Your task to perform on an android device: What's the weather today? Image 0: 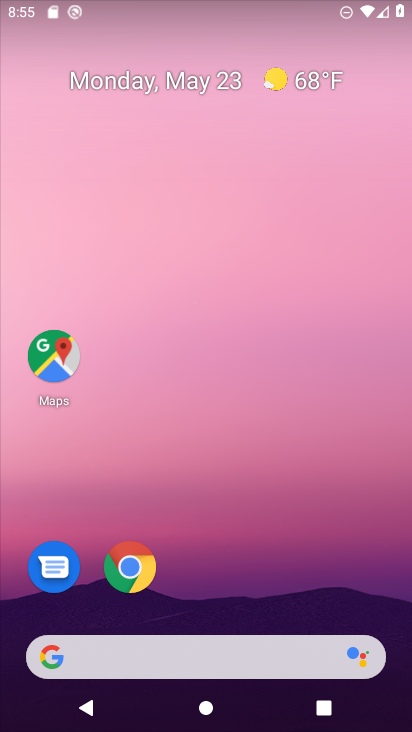
Step 0: click (409, 60)
Your task to perform on an android device: What's the weather today? Image 1: 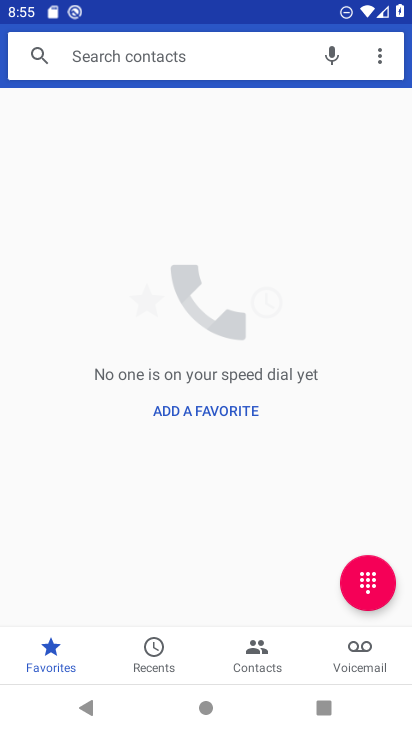
Step 1: press home button
Your task to perform on an android device: What's the weather today? Image 2: 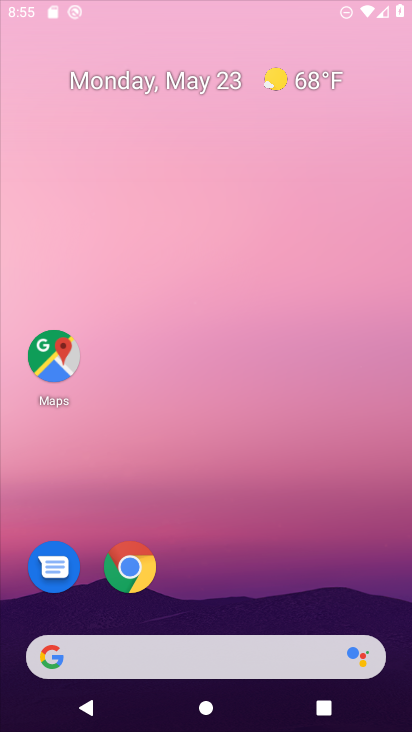
Step 2: drag from (191, 630) to (286, 124)
Your task to perform on an android device: What's the weather today? Image 3: 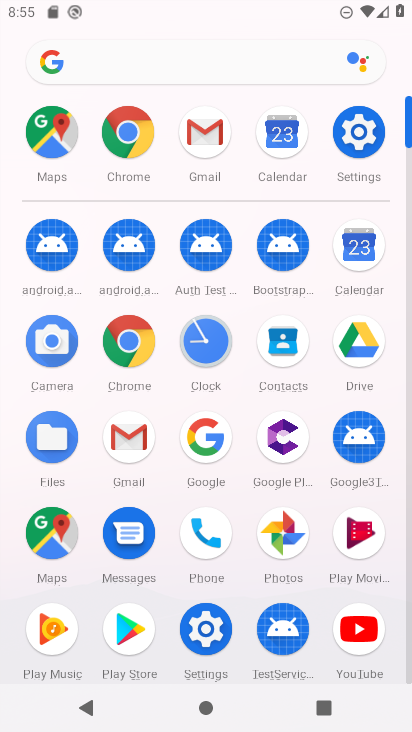
Step 3: click (181, 53)
Your task to perform on an android device: What's the weather today? Image 4: 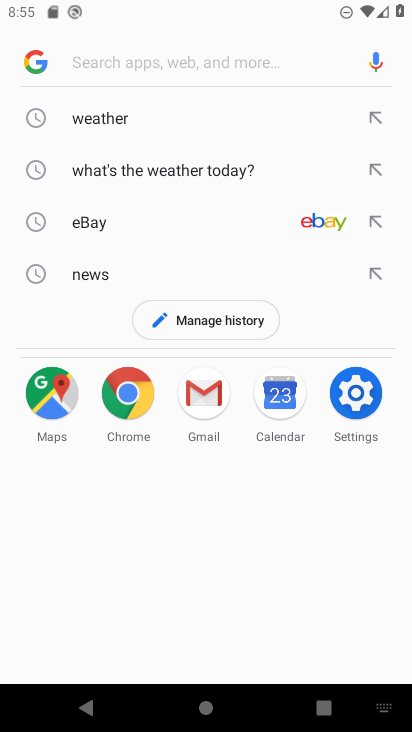
Step 4: type "What's the weather today?"
Your task to perform on an android device: What's the weather today? Image 5: 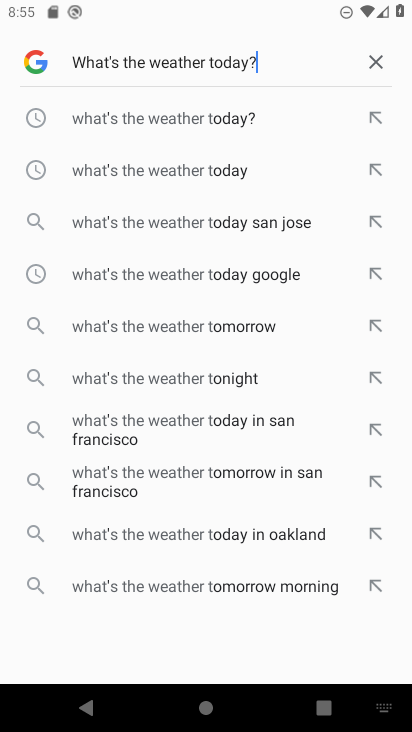
Step 5: type ""
Your task to perform on an android device: What's the weather today? Image 6: 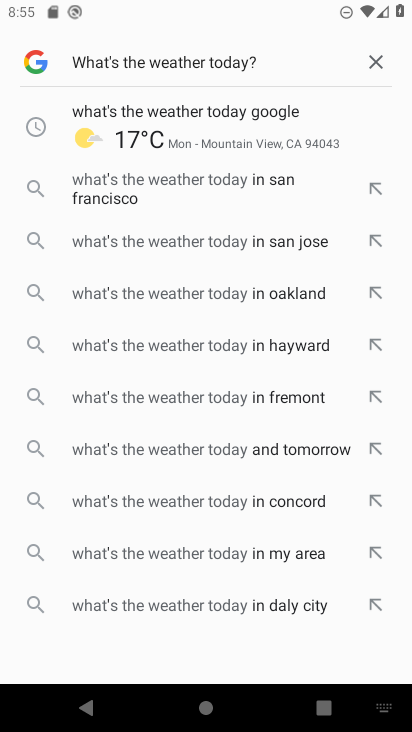
Step 6: click (97, 125)
Your task to perform on an android device: What's the weather today? Image 7: 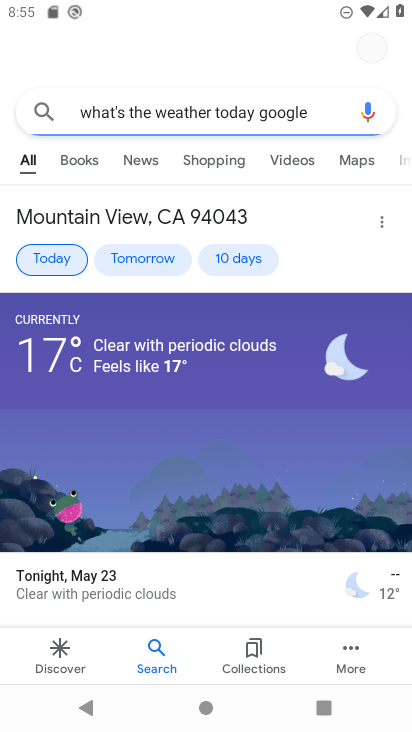
Step 7: task complete